Your task to perform on an android device: turn off improve location accuracy Image 0: 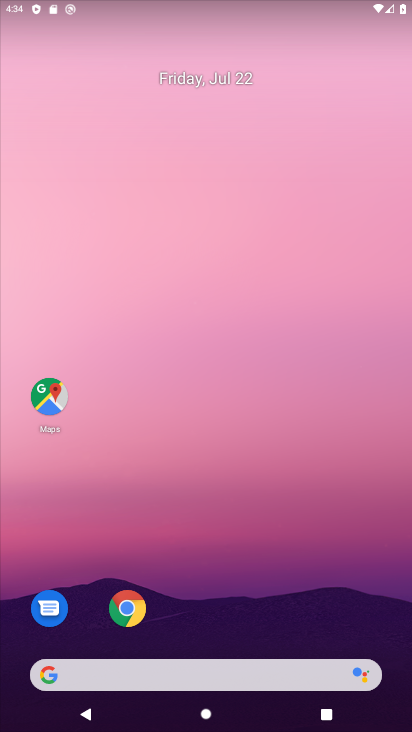
Step 0: drag from (195, 599) to (160, 372)
Your task to perform on an android device: turn off improve location accuracy Image 1: 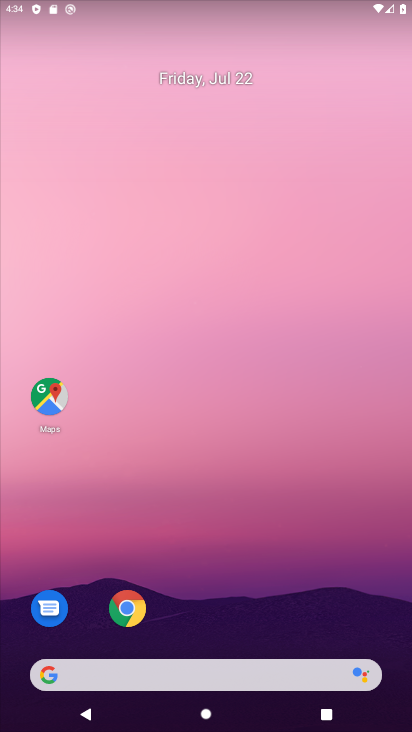
Step 1: drag from (210, 617) to (277, 87)
Your task to perform on an android device: turn off improve location accuracy Image 2: 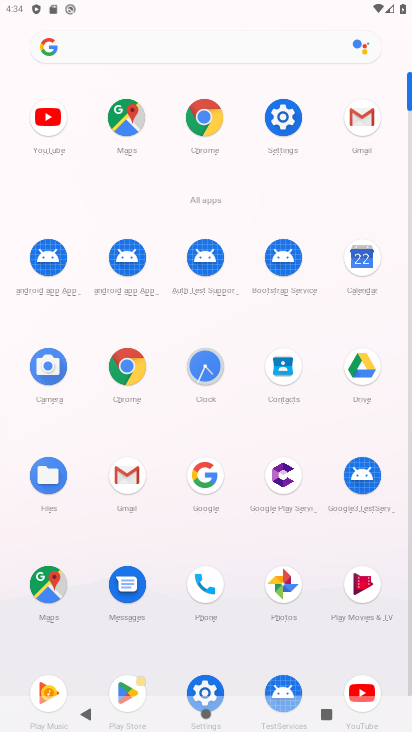
Step 2: click (281, 112)
Your task to perform on an android device: turn off improve location accuracy Image 3: 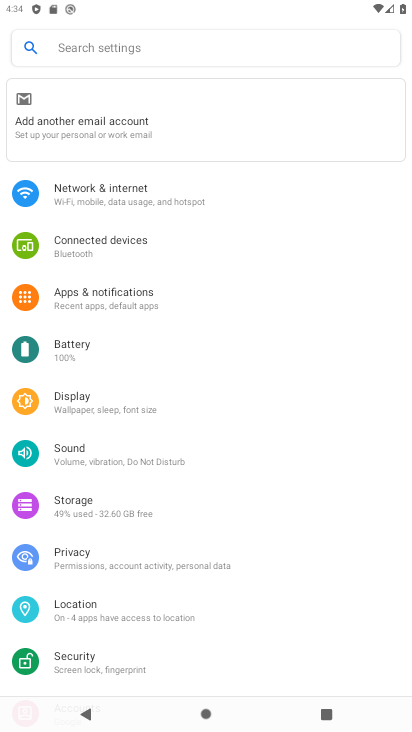
Step 3: click (73, 627)
Your task to perform on an android device: turn off improve location accuracy Image 4: 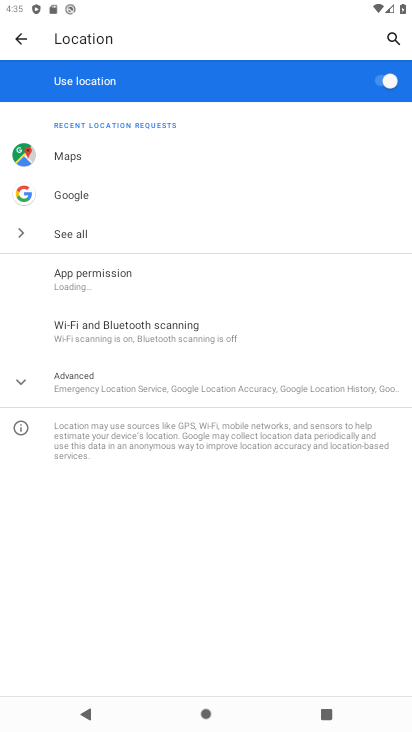
Step 4: click (129, 384)
Your task to perform on an android device: turn off improve location accuracy Image 5: 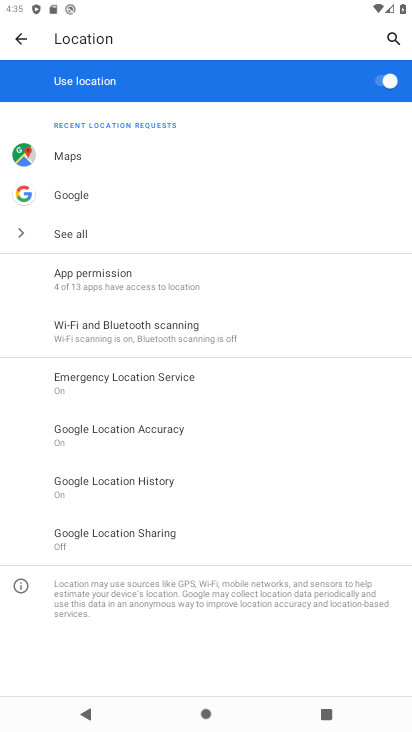
Step 5: click (150, 433)
Your task to perform on an android device: turn off improve location accuracy Image 6: 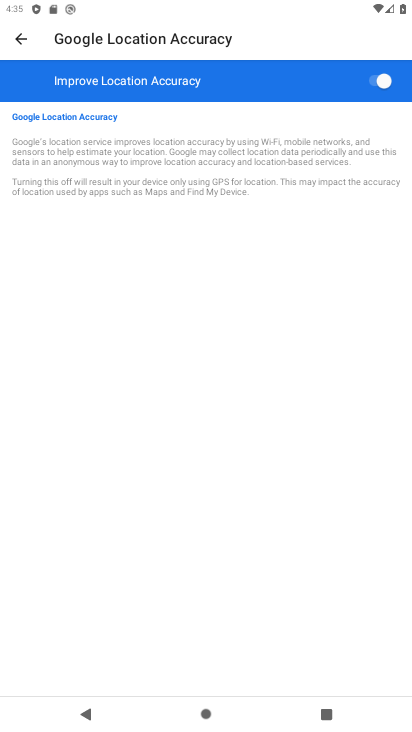
Step 6: click (379, 86)
Your task to perform on an android device: turn off improve location accuracy Image 7: 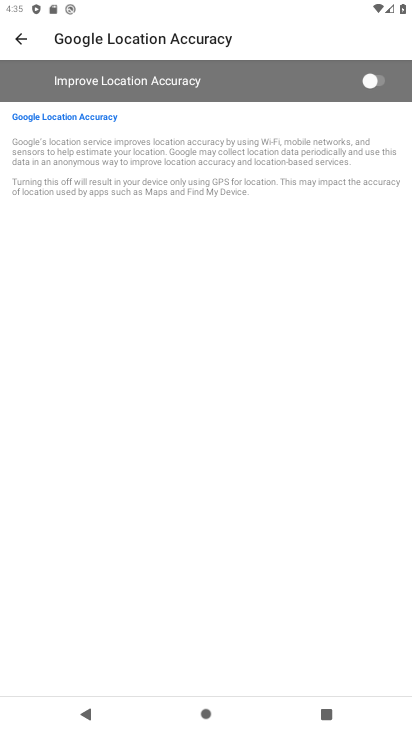
Step 7: task complete